Your task to perform on an android device: turn off translation in the chrome app Image 0: 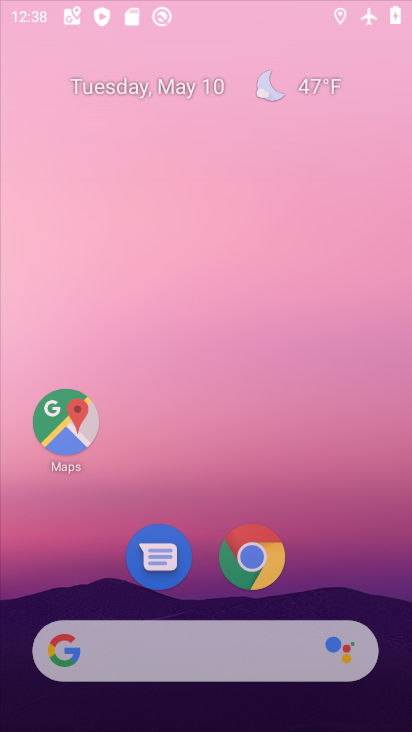
Step 0: drag from (191, 622) to (222, 359)
Your task to perform on an android device: turn off translation in the chrome app Image 1: 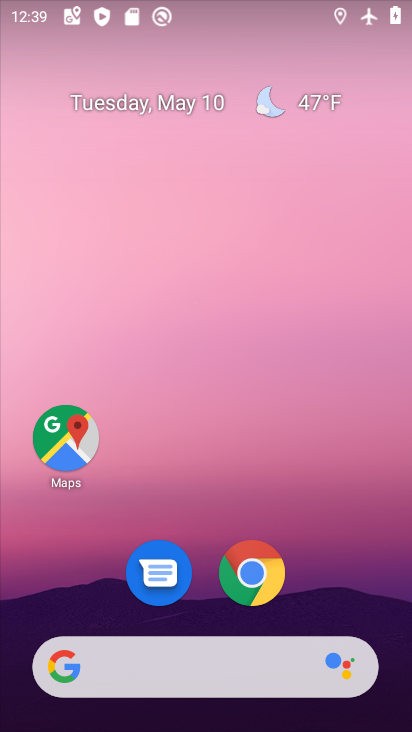
Step 1: drag from (201, 608) to (241, 357)
Your task to perform on an android device: turn off translation in the chrome app Image 2: 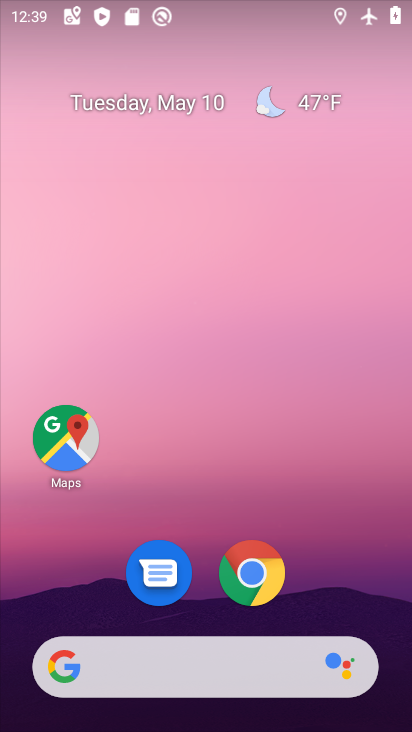
Step 2: drag from (173, 598) to (255, 298)
Your task to perform on an android device: turn off translation in the chrome app Image 3: 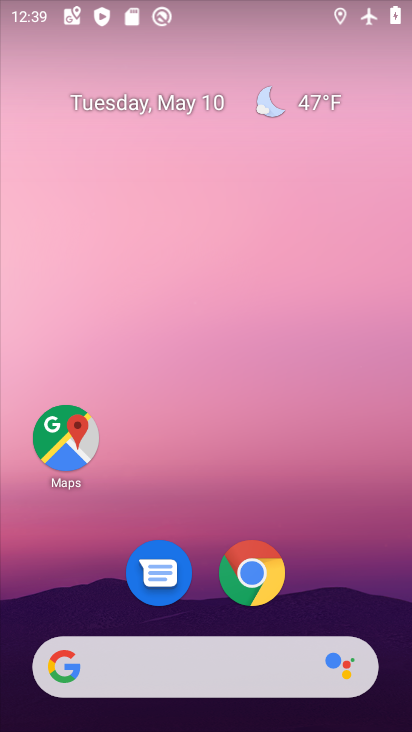
Step 3: drag from (182, 607) to (241, 279)
Your task to perform on an android device: turn off translation in the chrome app Image 4: 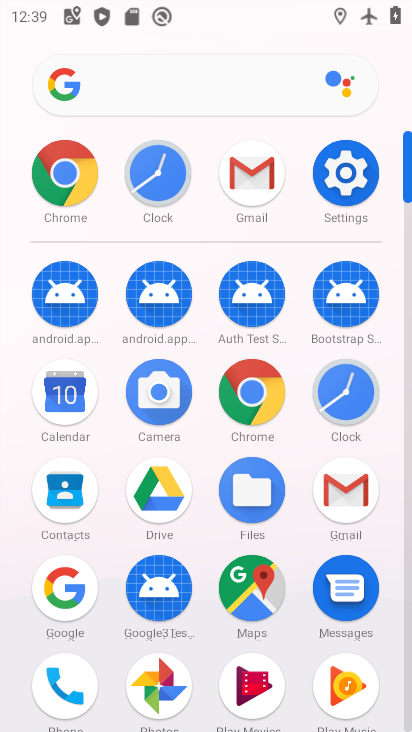
Step 4: click (247, 387)
Your task to perform on an android device: turn off translation in the chrome app Image 5: 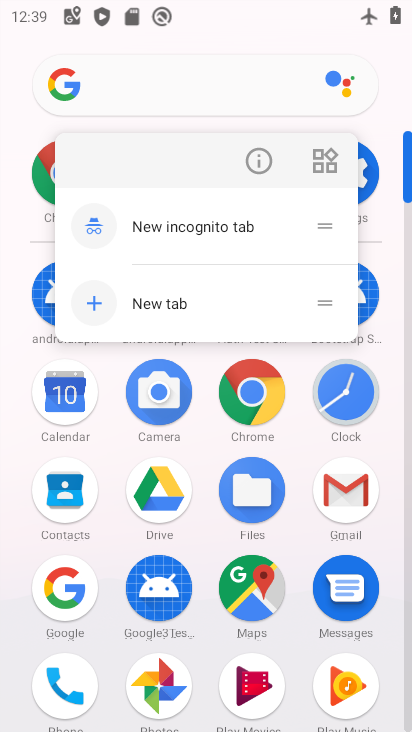
Step 5: click (250, 159)
Your task to perform on an android device: turn off translation in the chrome app Image 6: 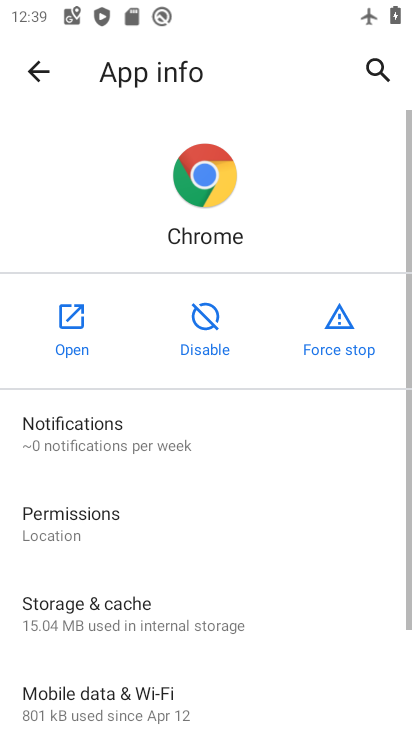
Step 6: click (78, 308)
Your task to perform on an android device: turn off translation in the chrome app Image 7: 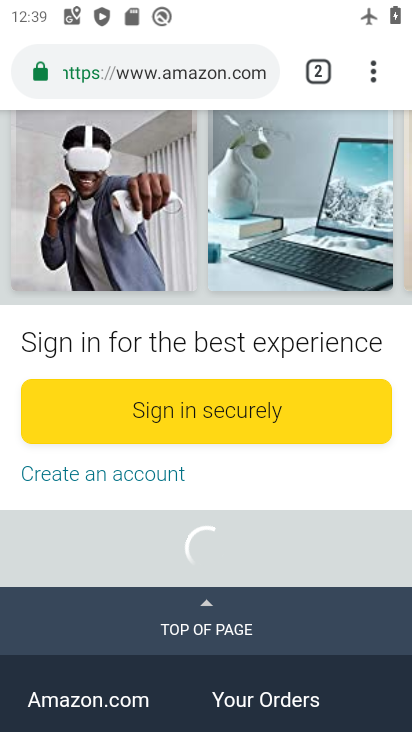
Step 7: click (367, 69)
Your task to perform on an android device: turn off translation in the chrome app Image 8: 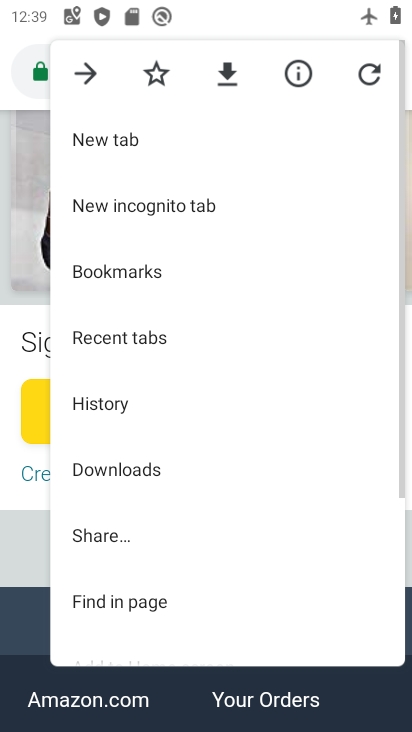
Step 8: drag from (227, 536) to (271, 196)
Your task to perform on an android device: turn off translation in the chrome app Image 9: 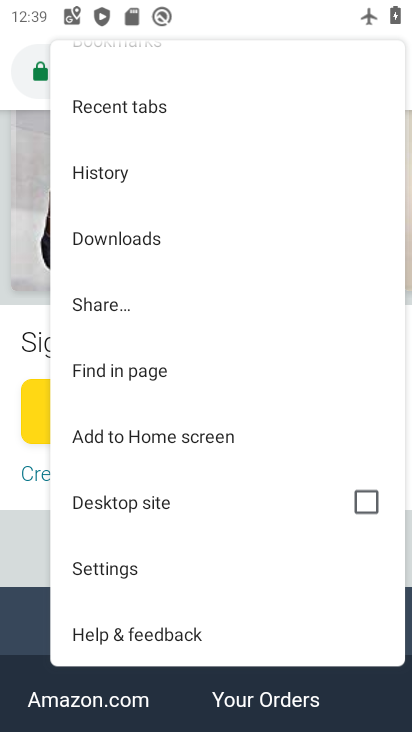
Step 9: click (93, 566)
Your task to perform on an android device: turn off translation in the chrome app Image 10: 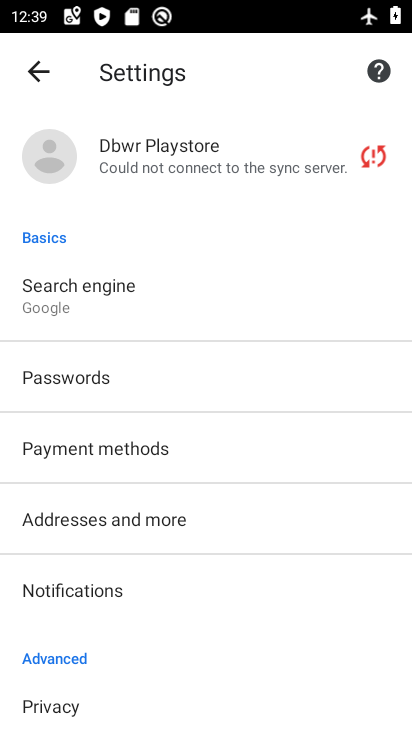
Step 10: drag from (186, 584) to (231, 192)
Your task to perform on an android device: turn off translation in the chrome app Image 11: 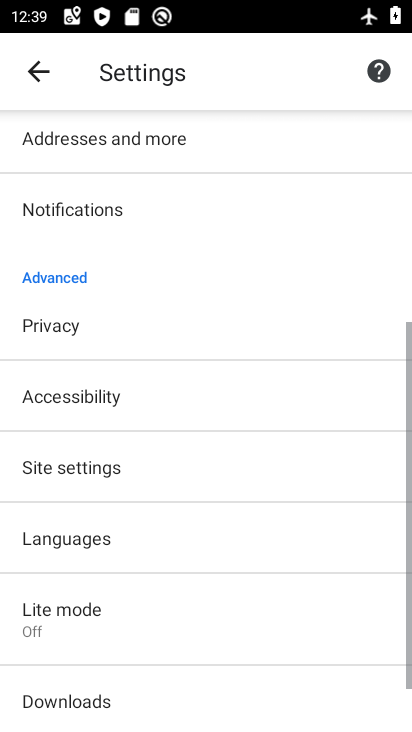
Step 11: drag from (153, 599) to (180, 357)
Your task to perform on an android device: turn off translation in the chrome app Image 12: 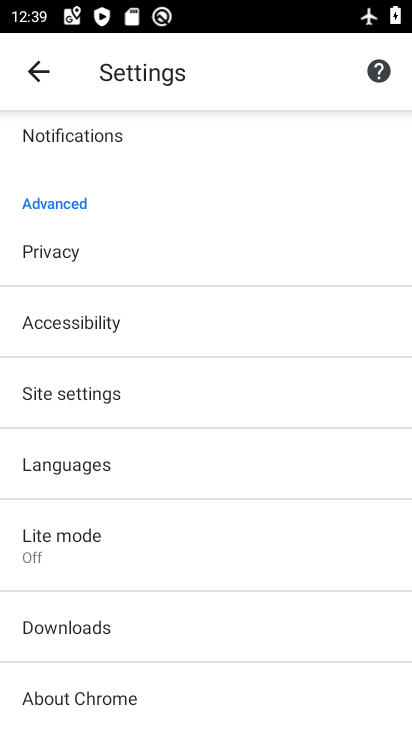
Step 12: click (126, 477)
Your task to perform on an android device: turn off translation in the chrome app Image 13: 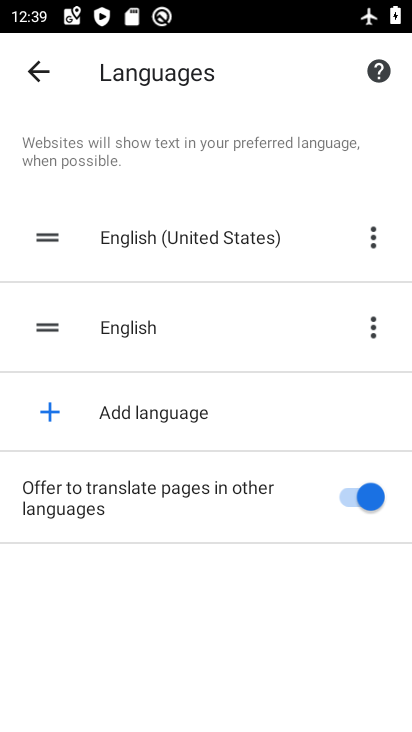
Step 13: click (332, 501)
Your task to perform on an android device: turn off translation in the chrome app Image 14: 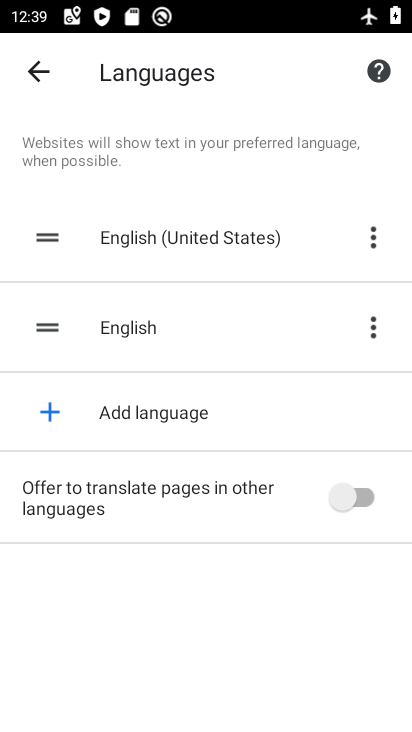
Step 14: task complete